Your task to perform on an android device: set default search engine in the chrome app Image 0: 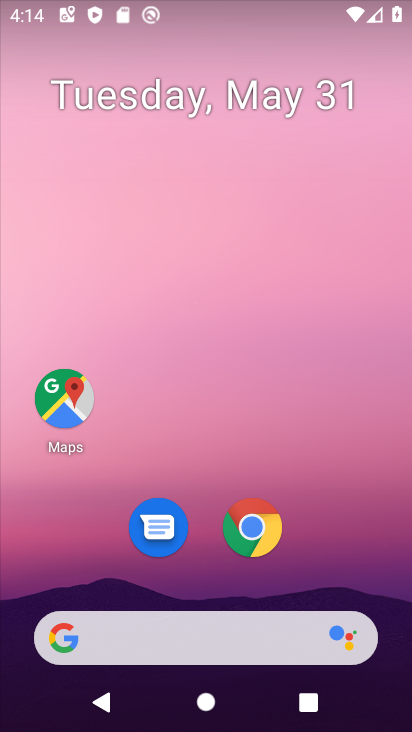
Step 0: drag from (333, 440) to (278, 1)
Your task to perform on an android device: set default search engine in the chrome app Image 1: 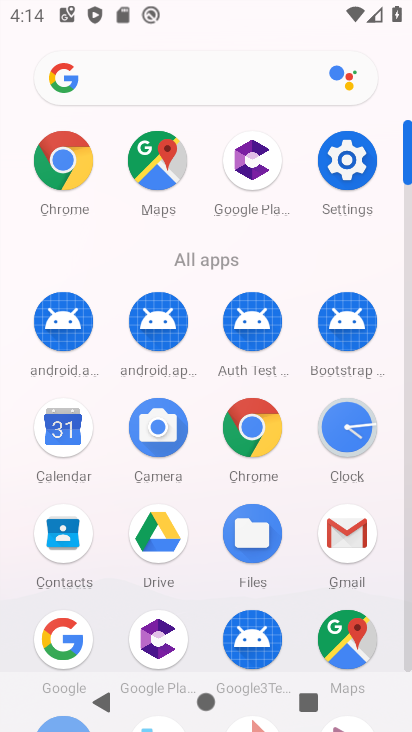
Step 1: click (252, 422)
Your task to perform on an android device: set default search engine in the chrome app Image 2: 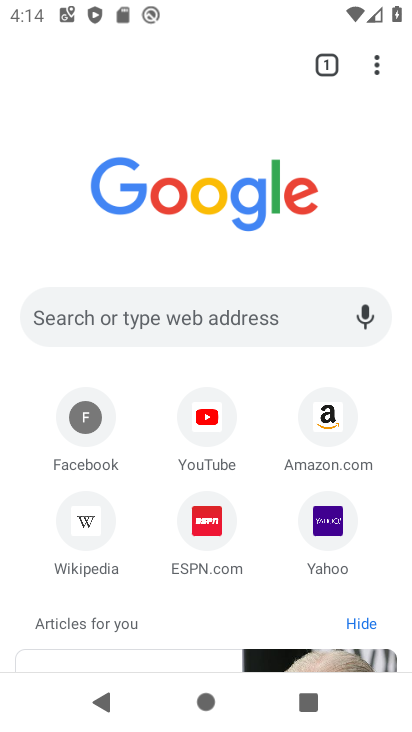
Step 2: drag from (371, 65) to (175, 539)
Your task to perform on an android device: set default search engine in the chrome app Image 3: 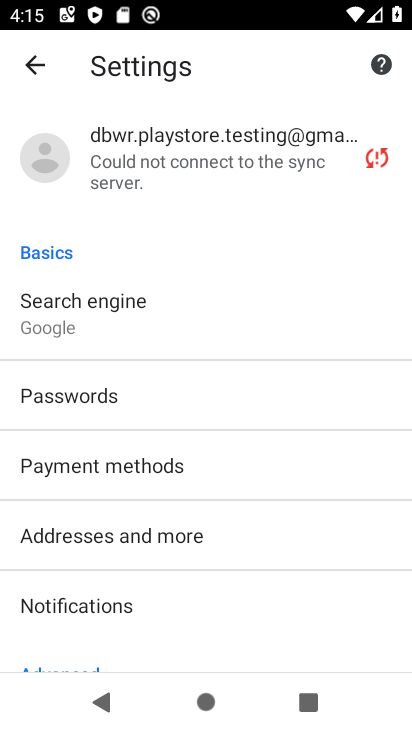
Step 3: click (114, 302)
Your task to perform on an android device: set default search engine in the chrome app Image 4: 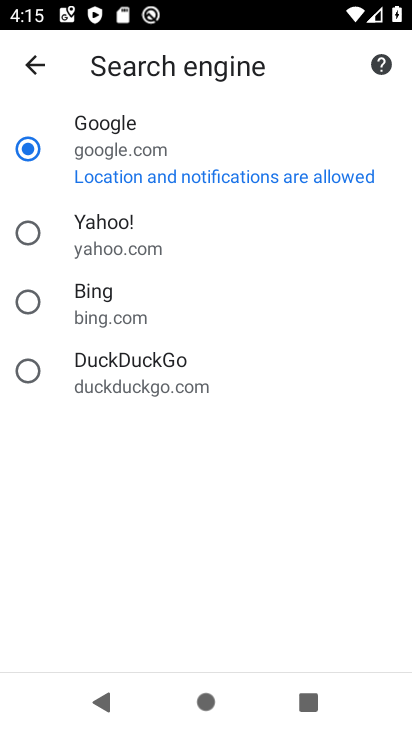
Step 4: task complete